Your task to perform on an android device: What's the weather today? Image 0: 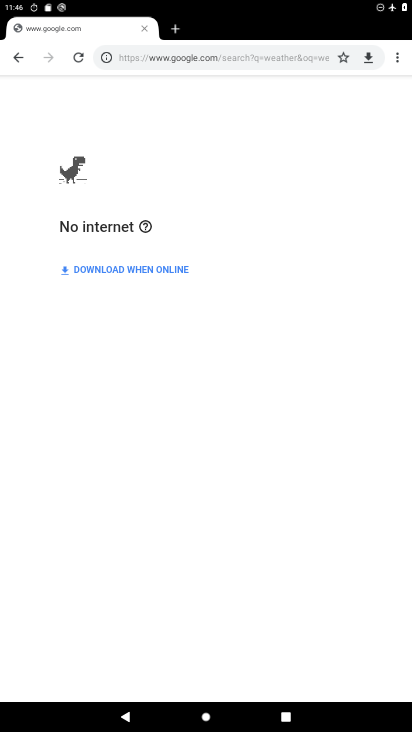
Step 0: press home button
Your task to perform on an android device: What's the weather today? Image 1: 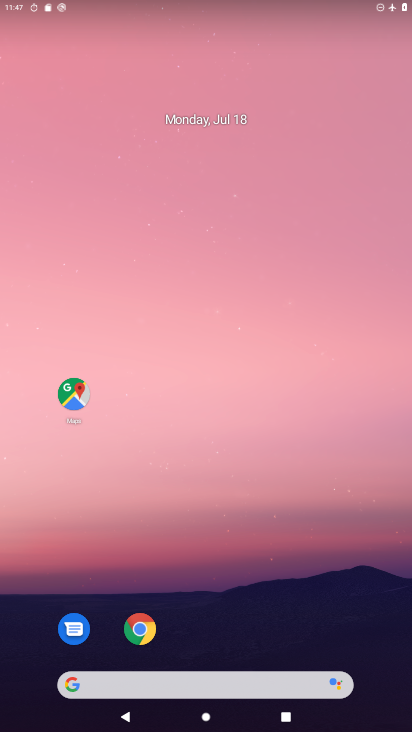
Step 1: drag from (324, 610) to (228, 150)
Your task to perform on an android device: What's the weather today? Image 2: 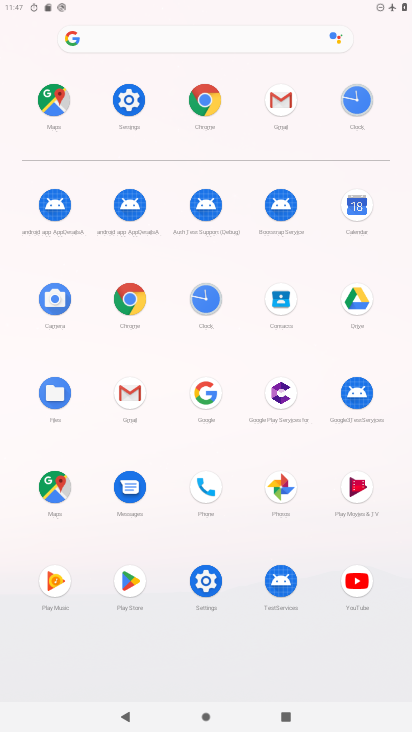
Step 2: click (209, 96)
Your task to perform on an android device: What's the weather today? Image 3: 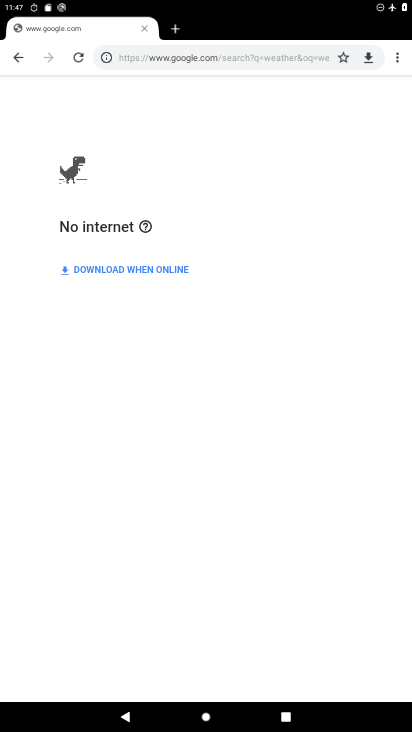
Step 3: click (209, 49)
Your task to perform on an android device: What's the weather today? Image 4: 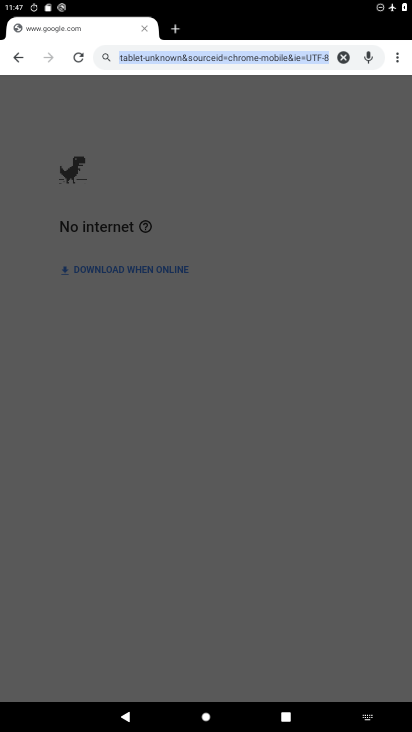
Step 4: type "weather"
Your task to perform on an android device: What's the weather today? Image 5: 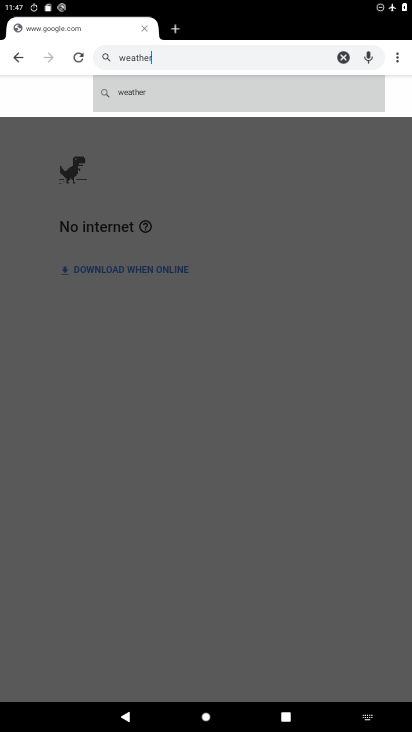
Step 5: click (168, 99)
Your task to perform on an android device: What's the weather today? Image 6: 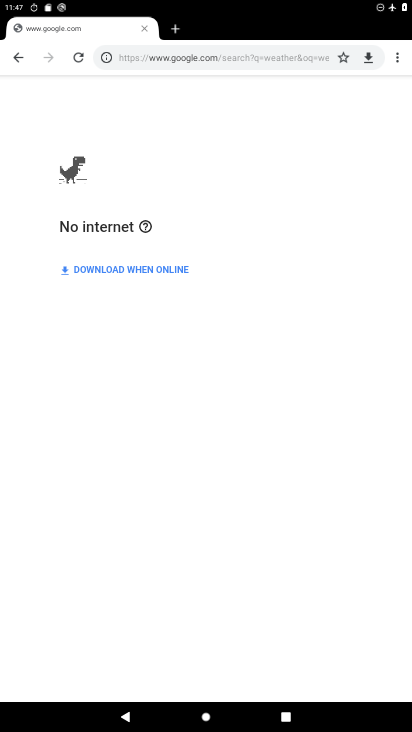
Step 6: task complete